Your task to perform on an android device: Open the phone app and click the voicemail tab. Image 0: 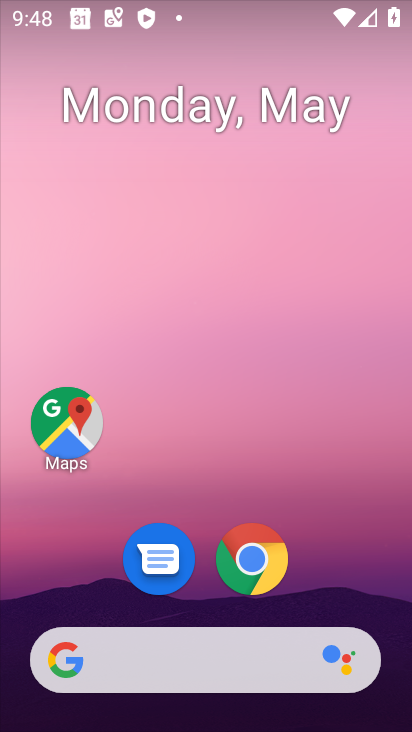
Step 0: drag from (332, 539) to (233, 195)
Your task to perform on an android device: Open the phone app and click the voicemail tab. Image 1: 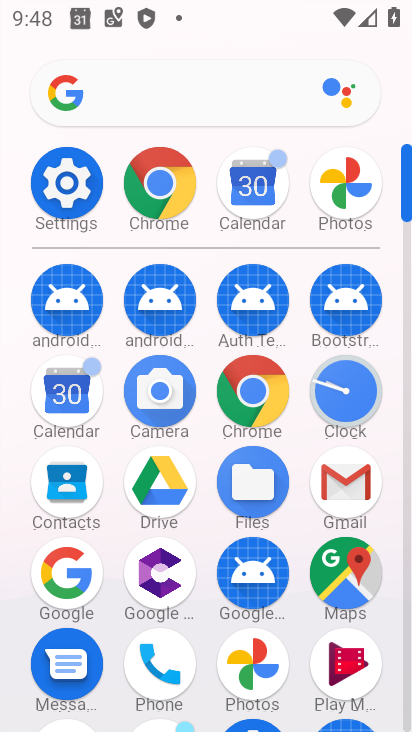
Step 1: click (160, 665)
Your task to perform on an android device: Open the phone app and click the voicemail tab. Image 2: 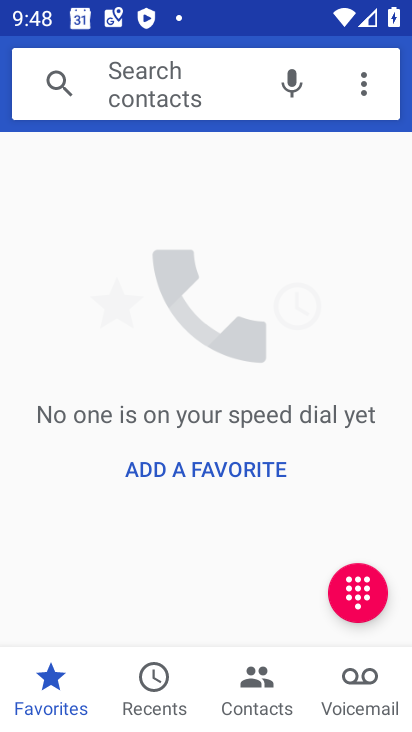
Step 2: click (337, 677)
Your task to perform on an android device: Open the phone app and click the voicemail tab. Image 3: 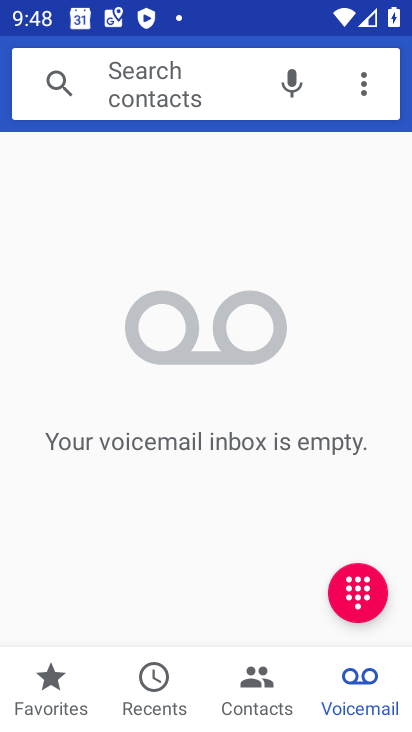
Step 3: task complete